Your task to perform on an android device: set the timer Image 0: 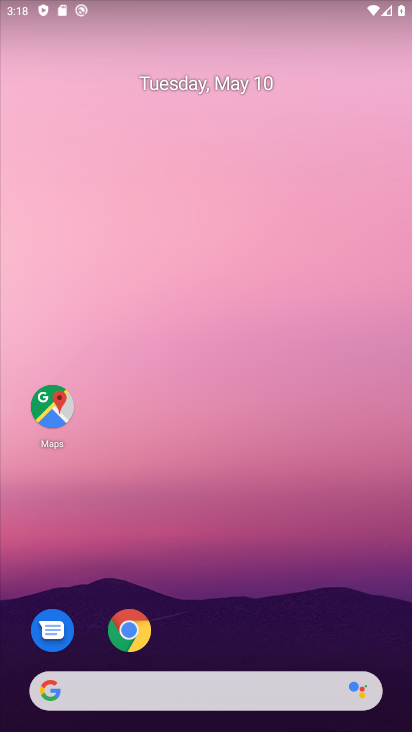
Step 0: drag from (221, 651) to (199, 116)
Your task to perform on an android device: set the timer Image 1: 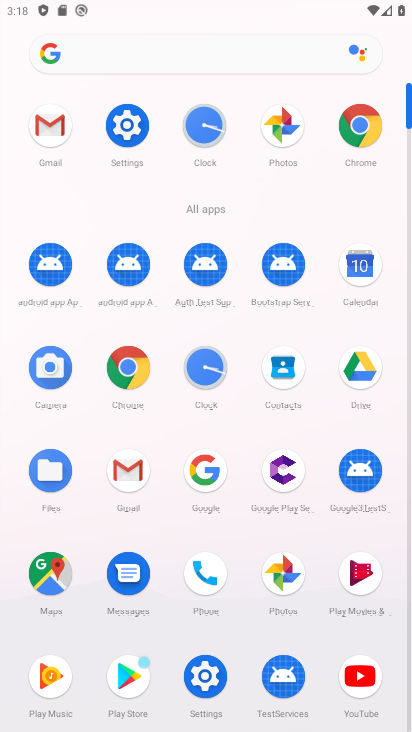
Step 1: click (241, 166)
Your task to perform on an android device: set the timer Image 2: 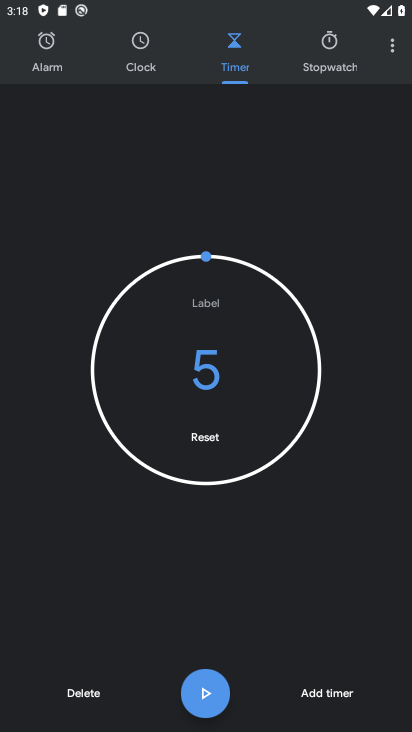
Step 2: click (204, 701)
Your task to perform on an android device: set the timer Image 3: 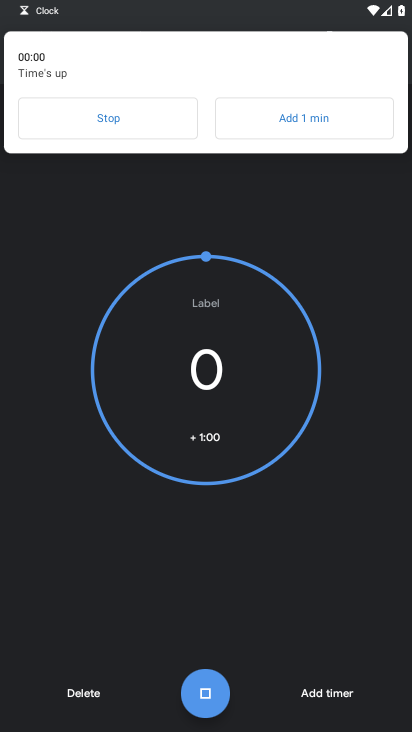
Step 3: task complete